Your task to perform on an android device: turn off picture-in-picture Image 0: 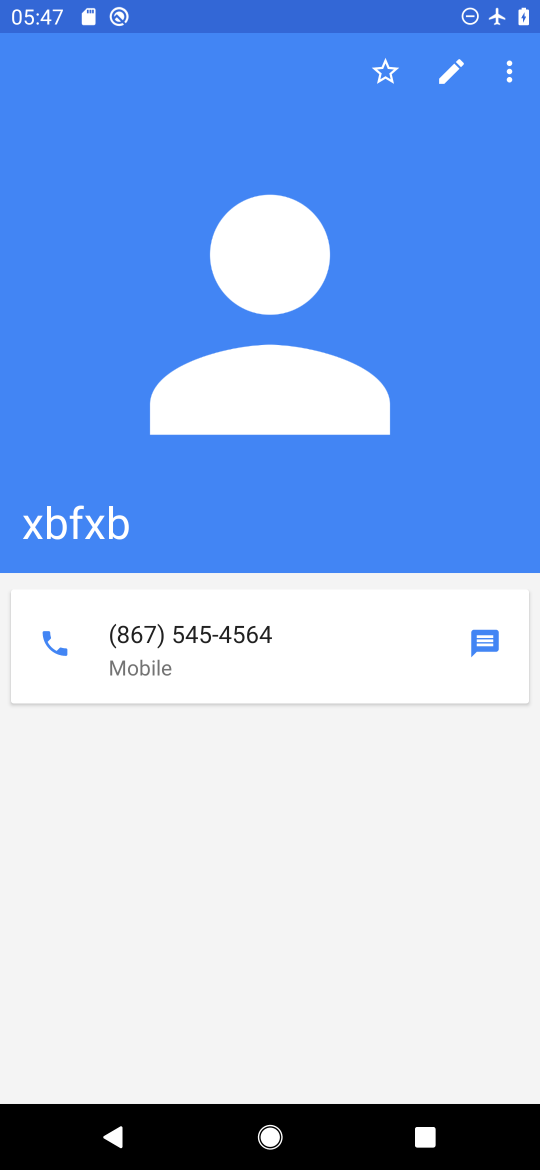
Step 0: press home button
Your task to perform on an android device: turn off picture-in-picture Image 1: 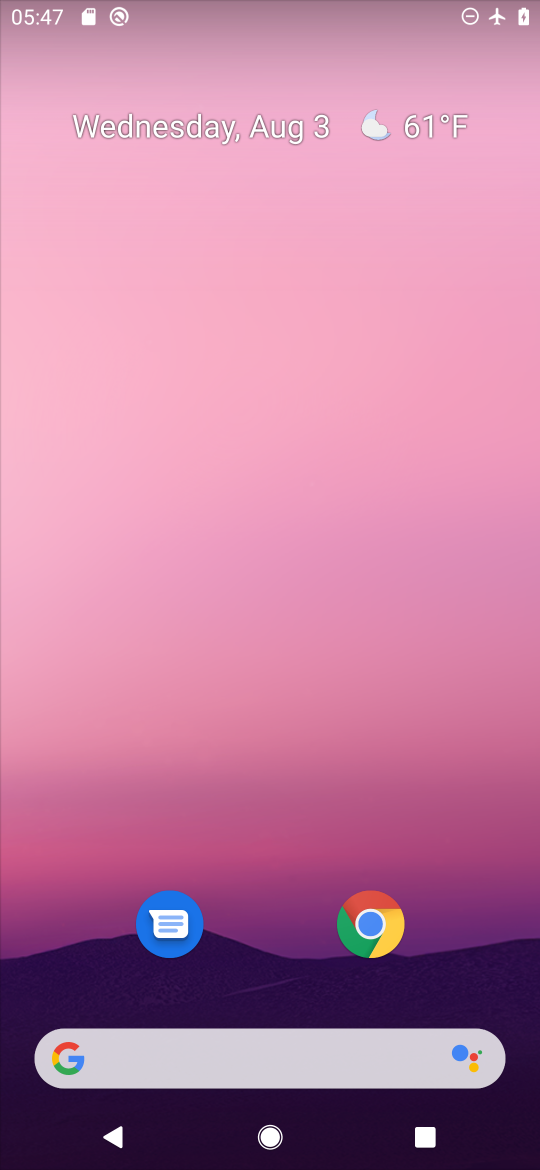
Step 1: click (356, 933)
Your task to perform on an android device: turn off picture-in-picture Image 2: 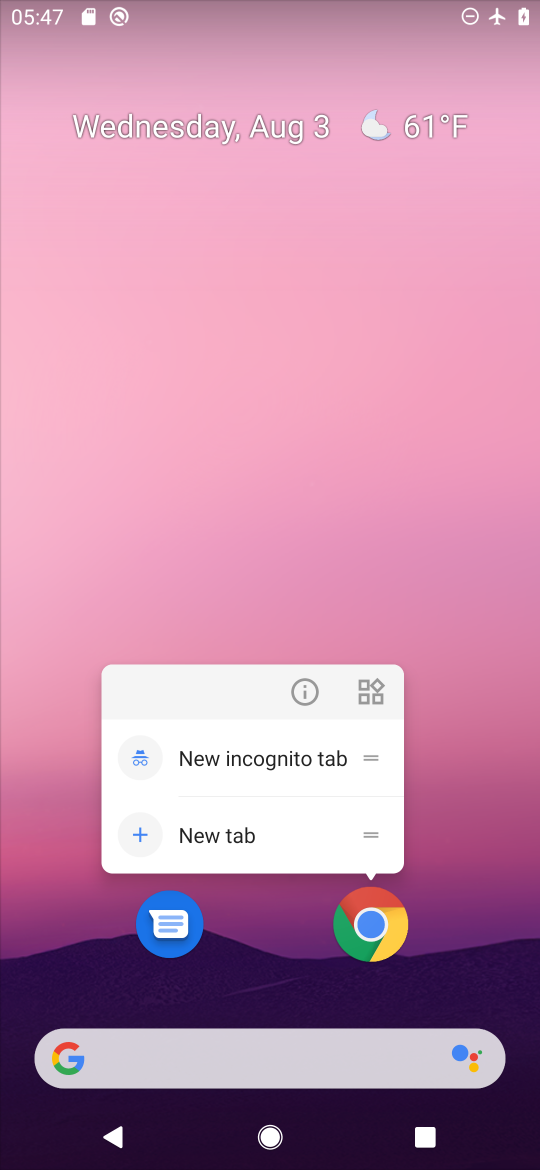
Step 2: click (319, 701)
Your task to perform on an android device: turn off picture-in-picture Image 3: 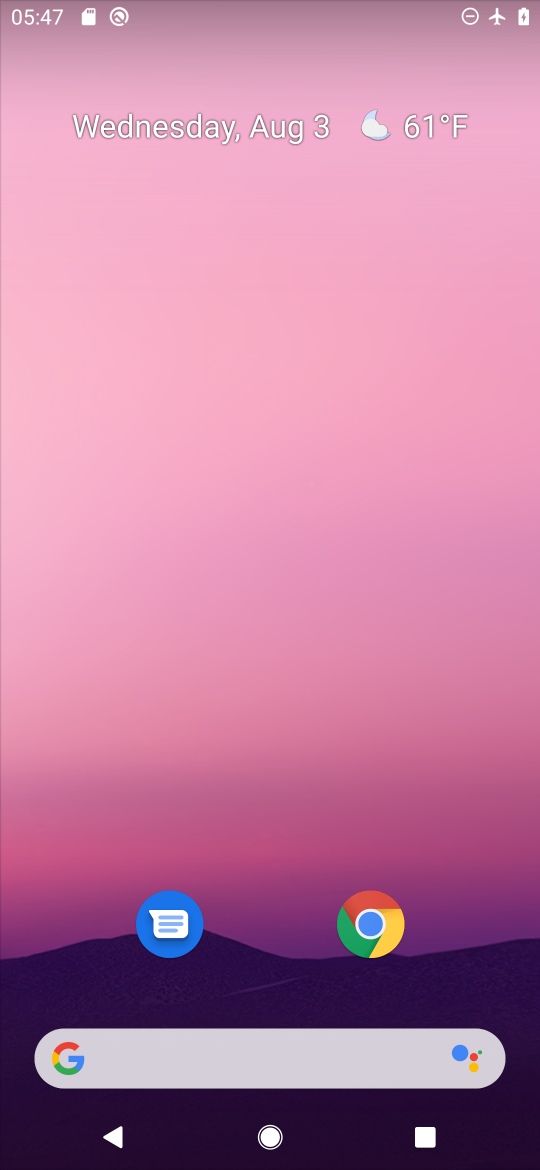
Step 3: click (370, 908)
Your task to perform on an android device: turn off picture-in-picture Image 4: 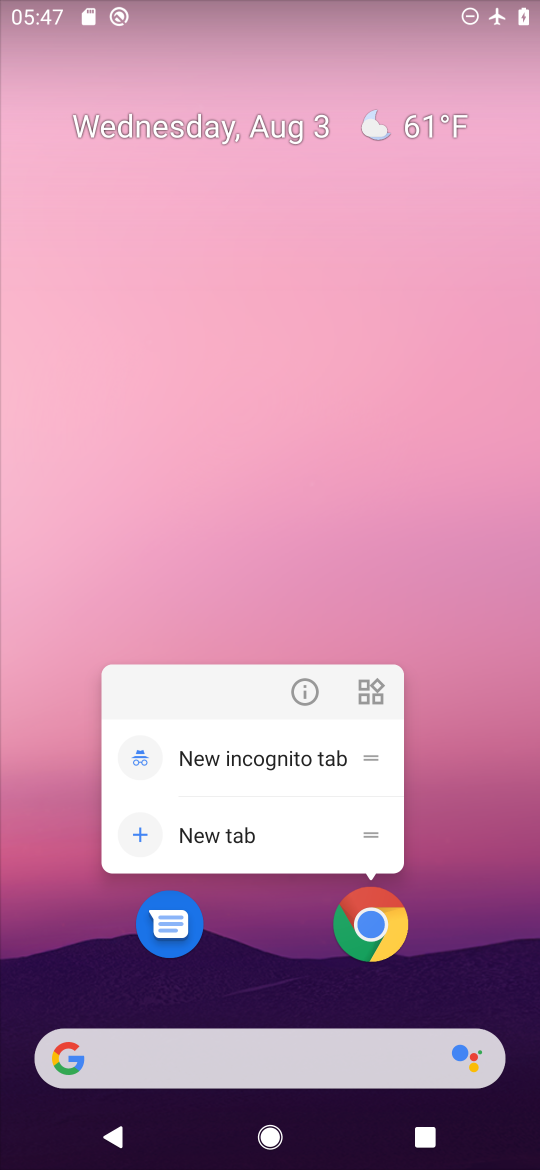
Step 4: click (293, 686)
Your task to perform on an android device: turn off picture-in-picture Image 5: 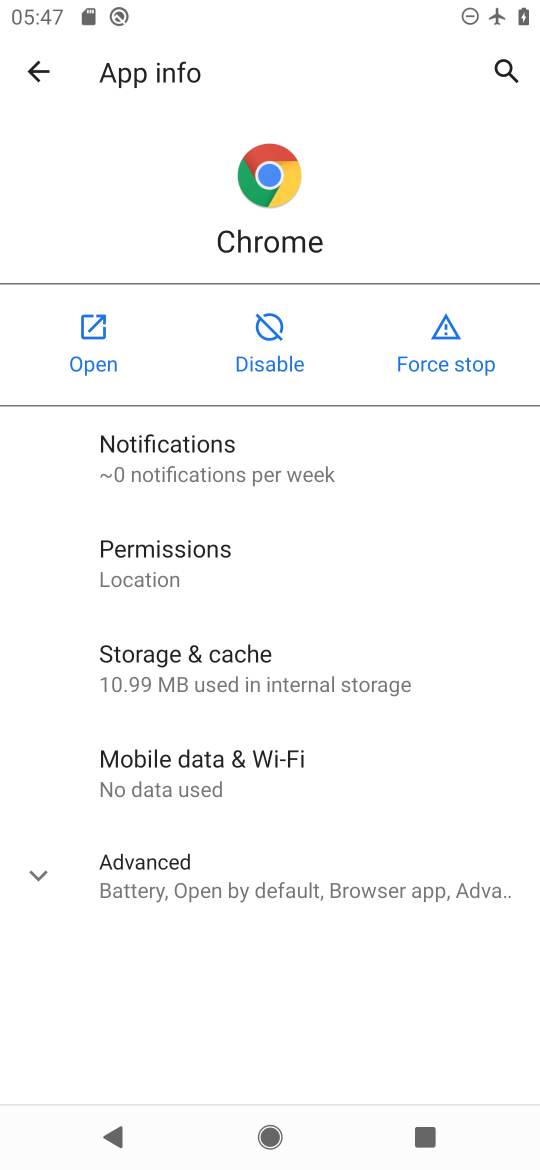
Step 5: click (264, 904)
Your task to perform on an android device: turn off picture-in-picture Image 6: 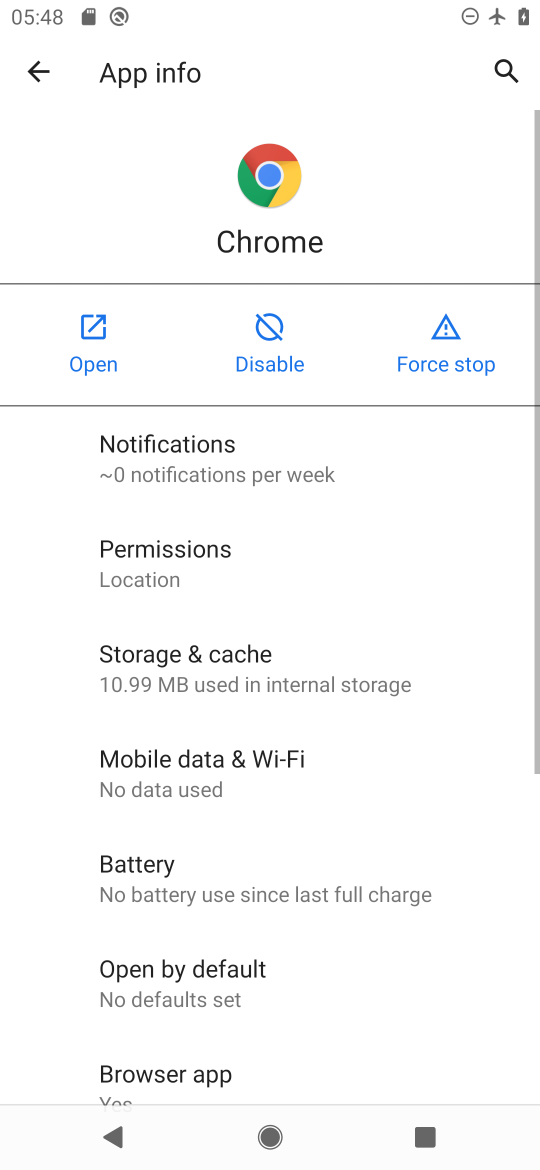
Step 6: drag from (343, 1005) to (310, 376)
Your task to perform on an android device: turn off picture-in-picture Image 7: 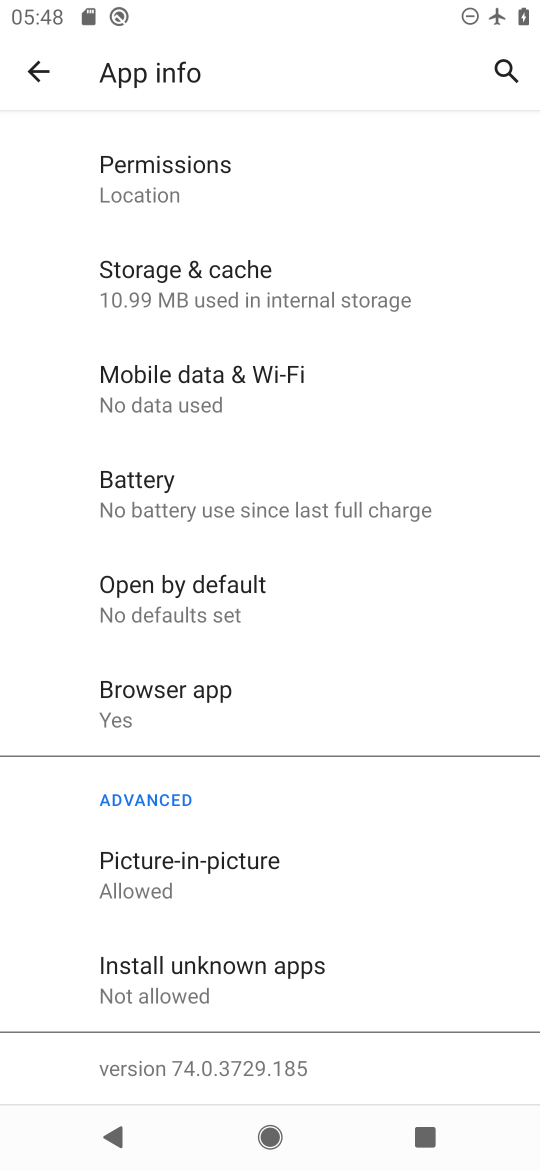
Step 7: click (291, 887)
Your task to perform on an android device: turn off picture-in-picture Image 8: 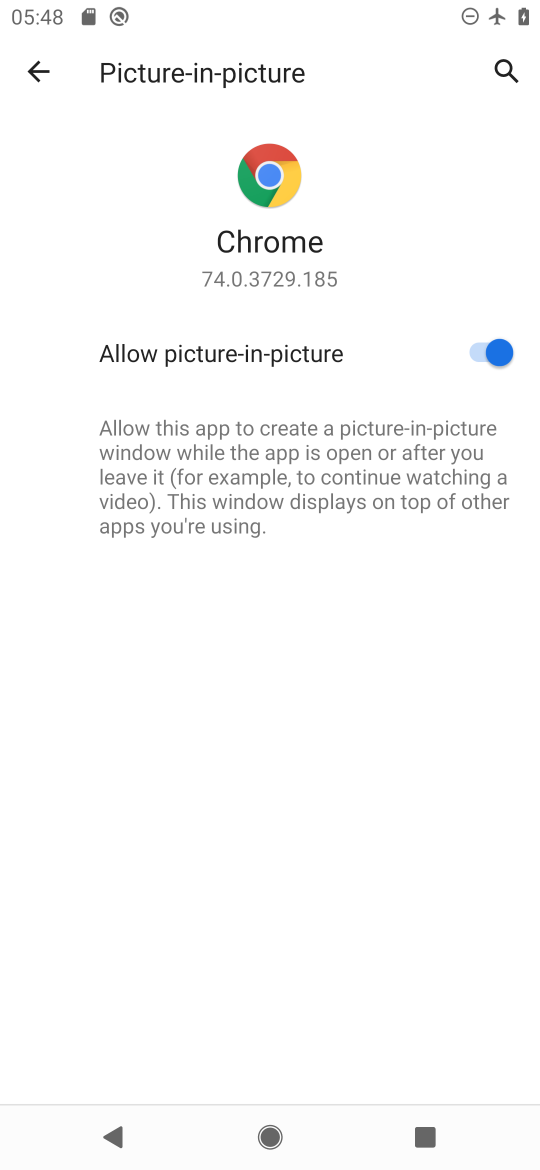
Step 8: click (476, 355)
Your task to perform on an android device: turn off picture-in-picture Image 9: 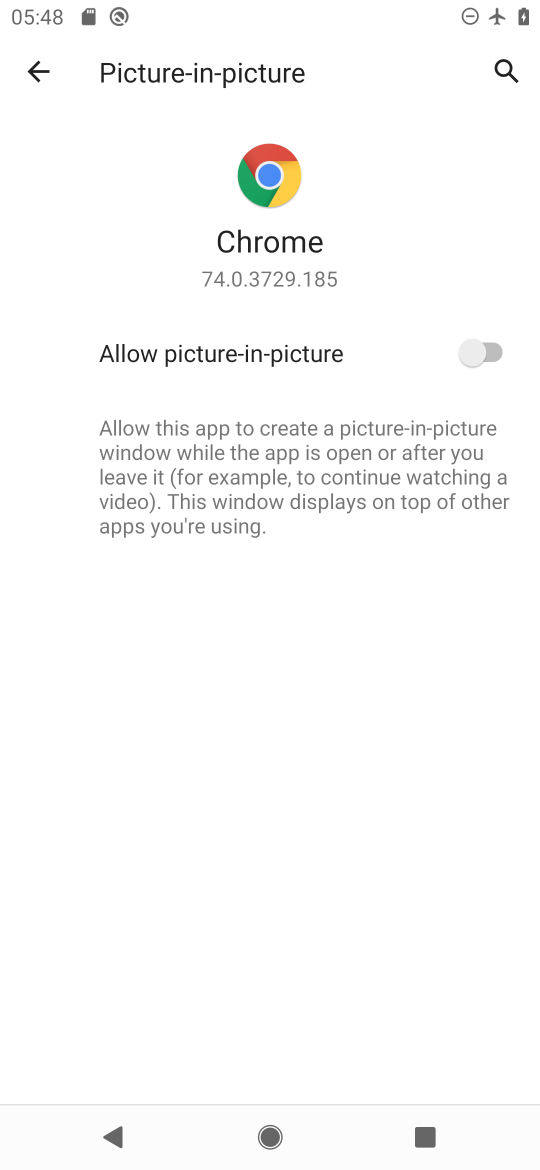
Step 9: task complete